Your task to perform on an android device: turn on improve location accuracy Image 0: 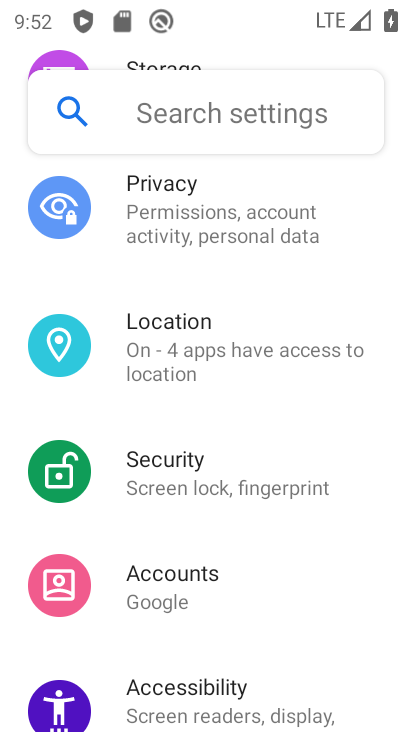
Step 0: drag from (194, 627) to (295, 176)
Your task to perform on an android device: turn on improve location accuracy Image 1: 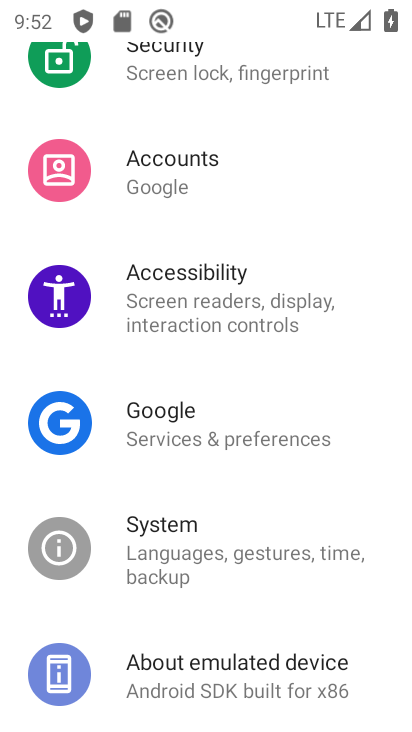
Step 1: press home button
Your task to perform on an android device: turn on improve location accuracy Image 2: 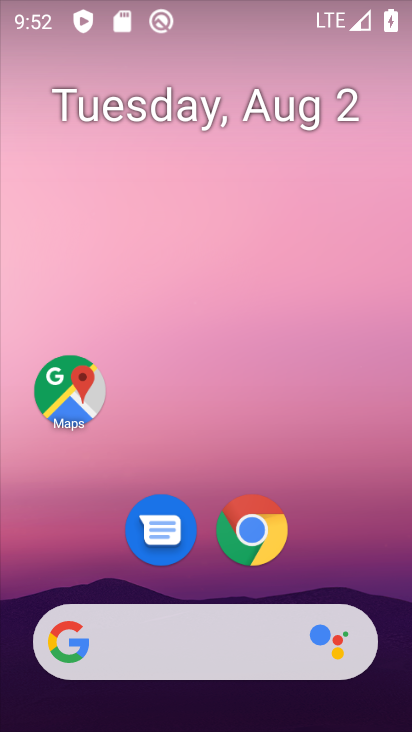
Step 2: drag from (343, 557) to (374, 132)
Your task to perform on an android device: turn on improve location accuracy Image 3: 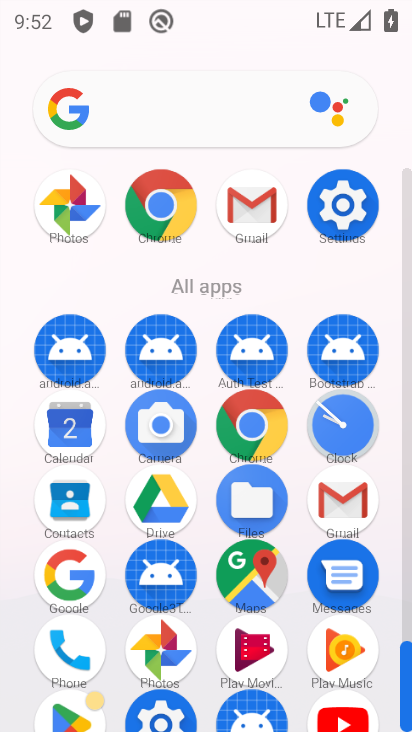
Step 3: click (354, 199)
Your task to perform on an android device: turn on improve location accuracy Image 4: 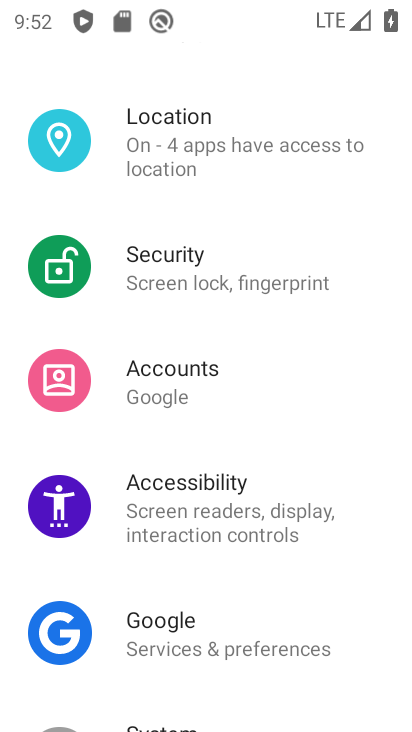
Step 4: drag from (260, 583) to (218, 629)
Your task to perform on an android device: turn on improve location accuracy Image 5: 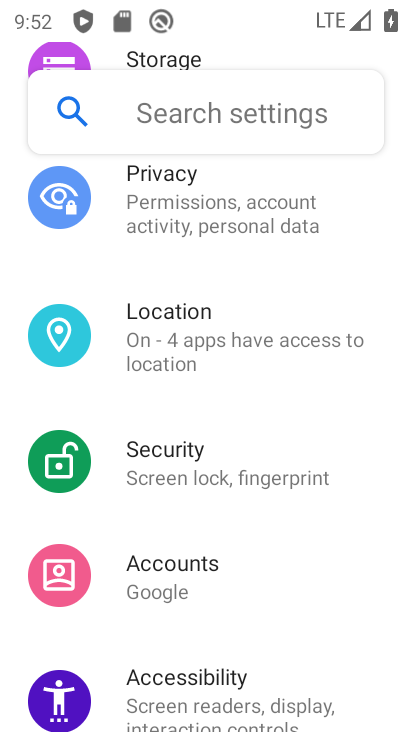
Step 5: drag from (196, 238) to (198, 380)
Your task to perform on an android device: turn on improve location accuracy Image 6: 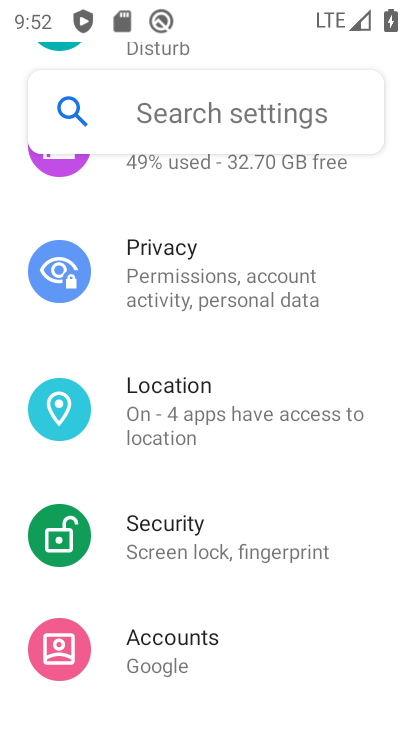
Step 6: click (184, 401)
Your task to perform on an android device: turn on improve location accuracy Image 7: 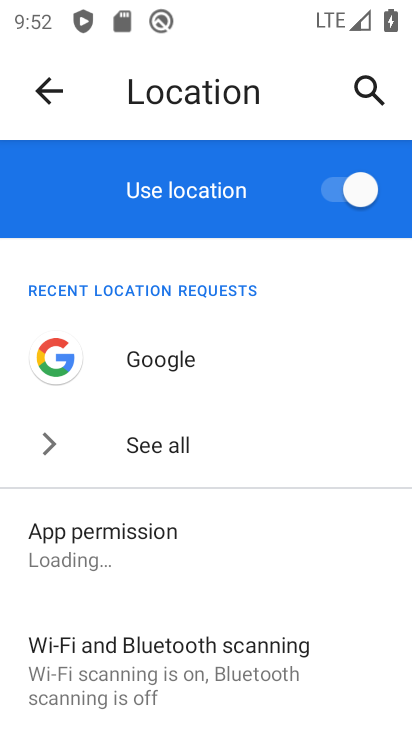
Step 7: drag from (246, 602) to (278, 137)
Your task to perform on an android device: turn on improve location accuracy Image 8: 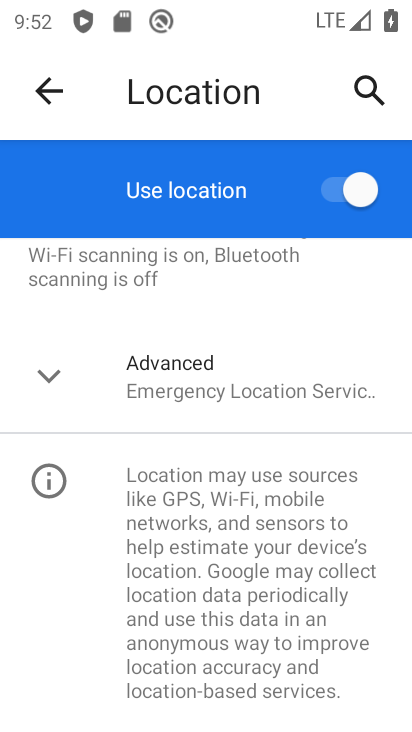
Step 8: click (172, 380)
Your task to perform on an android device: turn on improve location accuracy Image 9: 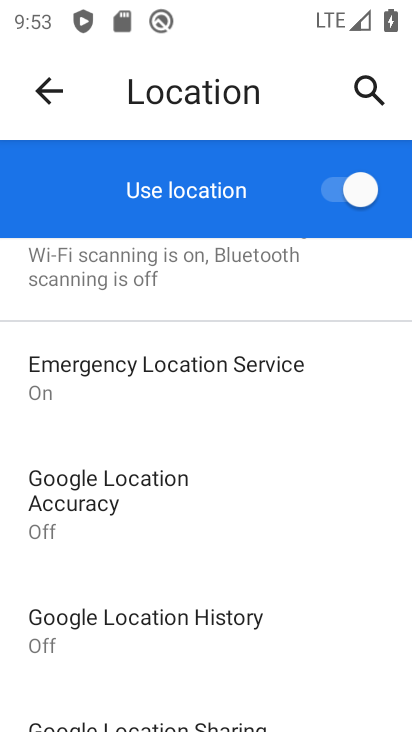
Step 9: click (137, 492)
Your task to perform on an android device: turn on improve location accuracy Image 10: 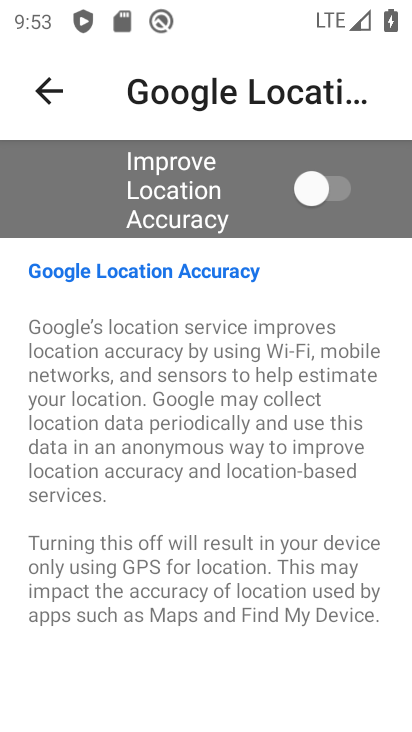
Step 10: click (329, 203)
Your task to perform on an android device: turn on improve location accuracy Image 11: 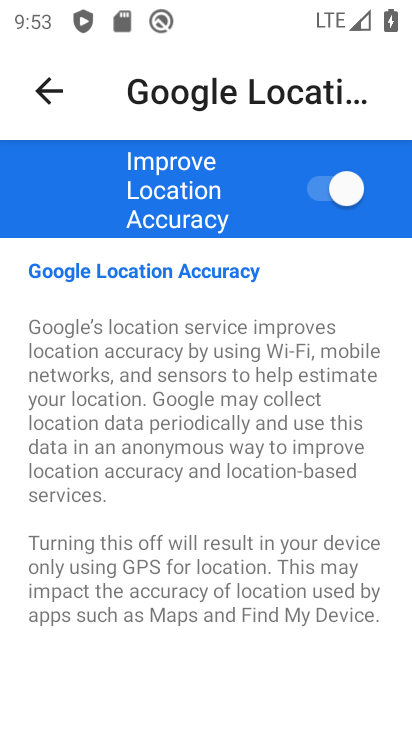
Step 11: task complete